Your task to perform on an android device: uninstall "Adobe Express: Graphic Design" Image 0: 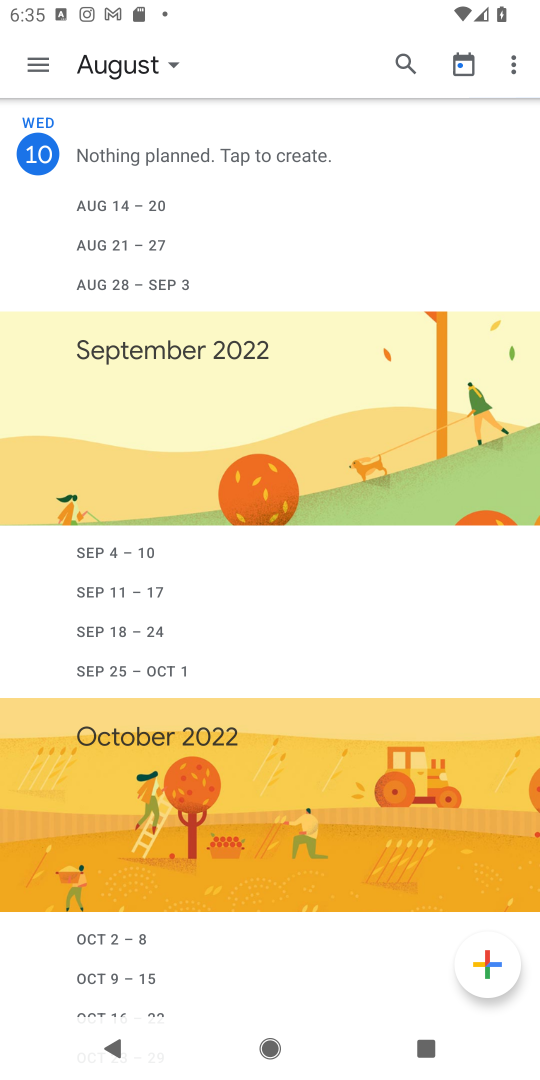
Step 0: press home button
Your task to perform on an android device: uninstall "Adobe Express: Graphic Design" Image 1: 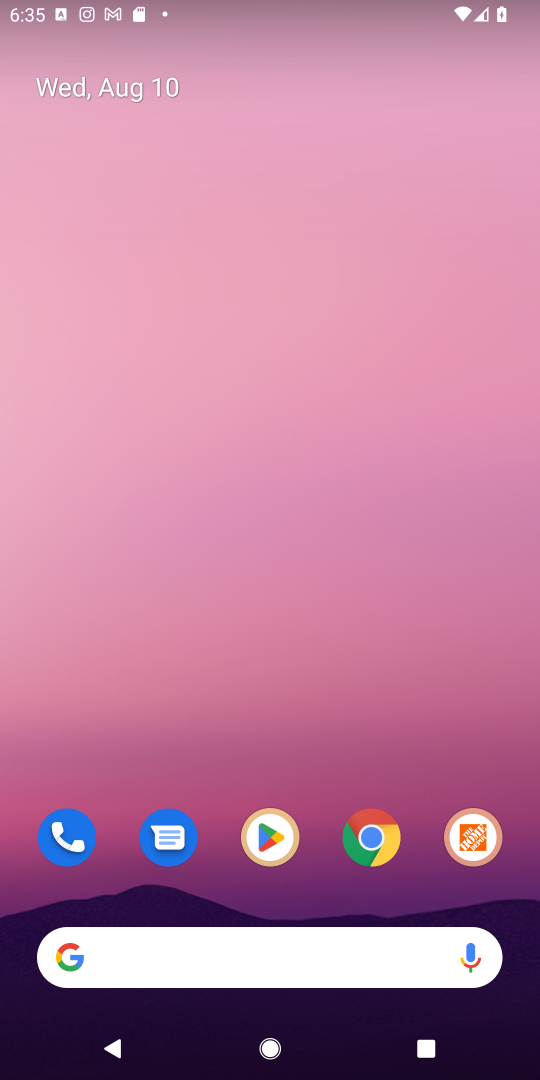
Step 1: press home button
Your task to perform on an android device: uninstall "Adobe Express: Graphic Design" Image 2: 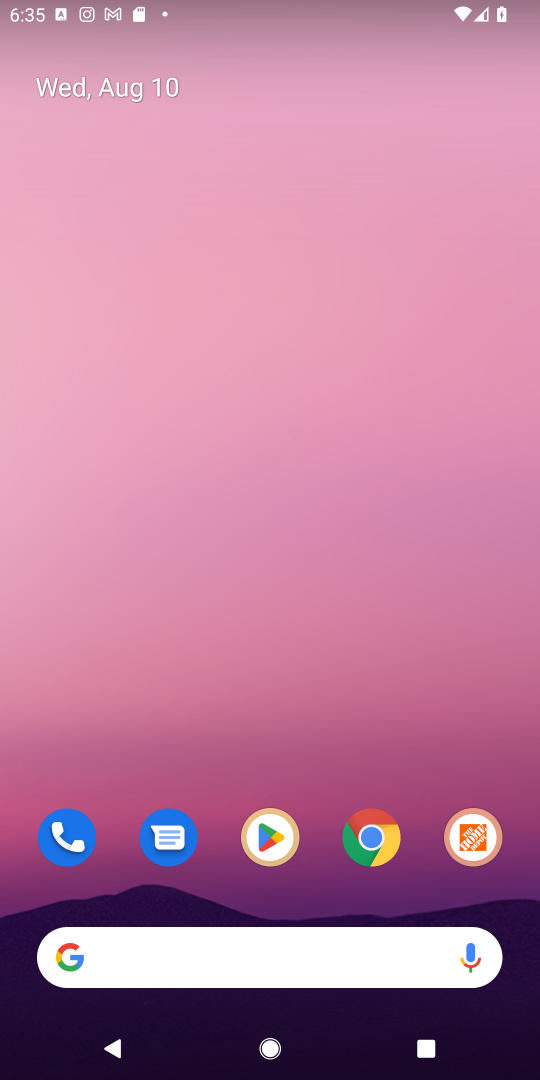
Step 2: click (269, 826)
Your task to perform on an android device: uninstall "Adobe Express: Graphic Design" Image 3: 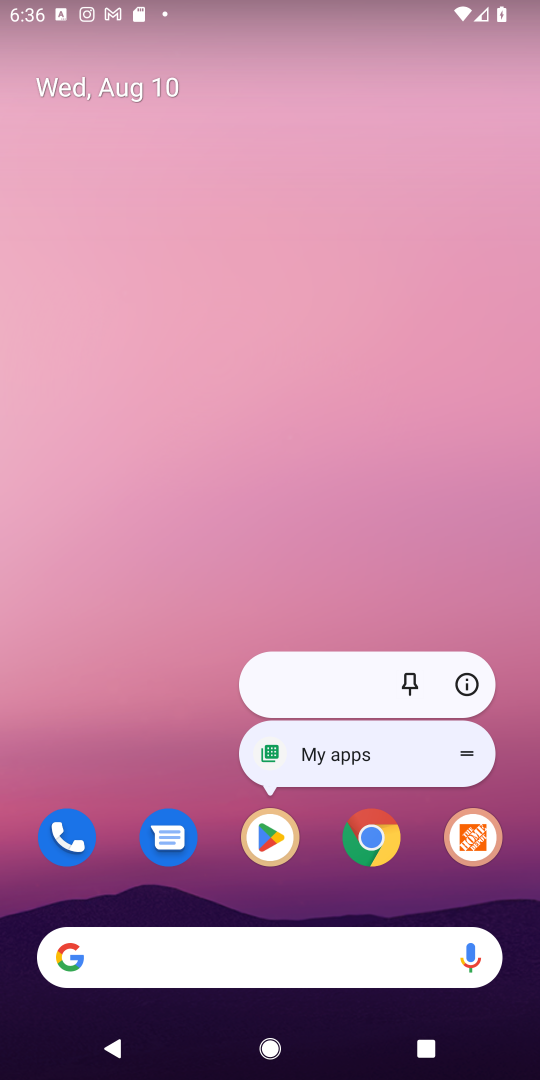
Step 3: click (271, 824)
Your task to perform on an android device: uninstall "Adobe Express: Graphic Design" Image 4: 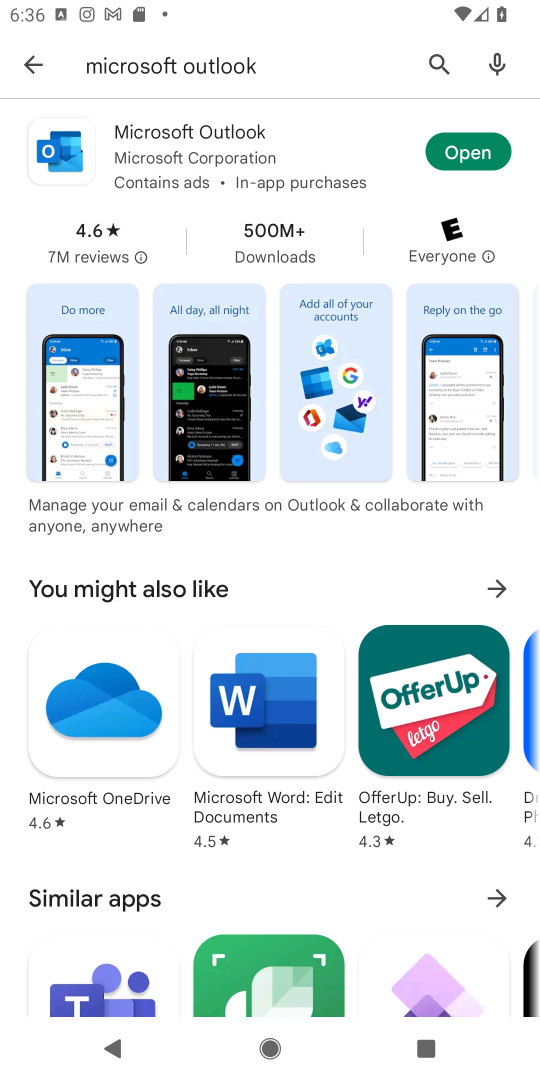
Step 4: click (431, 63)
Your task to perform on an android device: uninstall "Adobe Express: Graphic Design" Image 5: 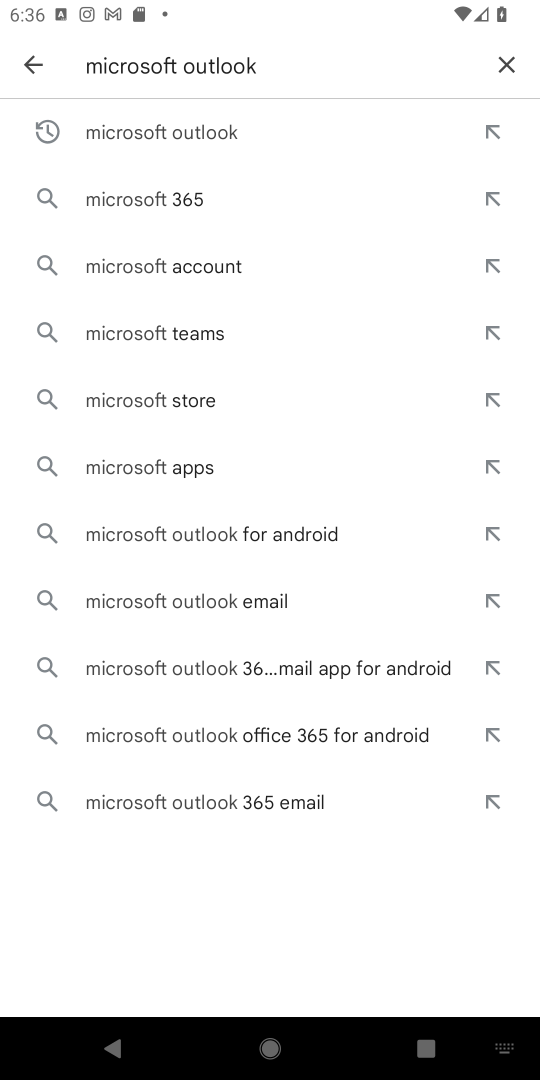
Step 5: click (509, 63)
Your task to perform on an android device: uninstall "Adobe Express: Graphic Design" Image 6: 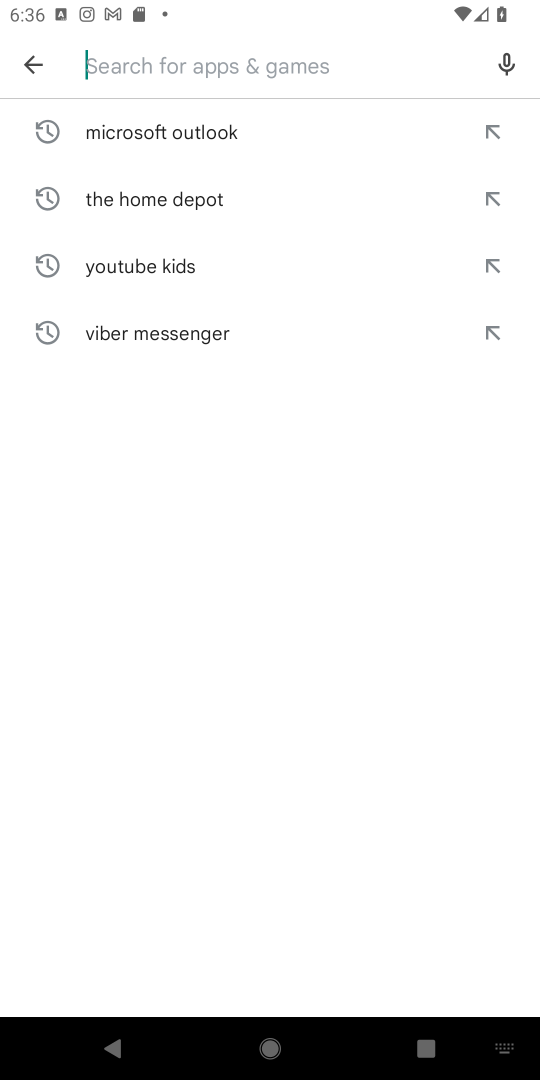
Step 6: type "Adobe Express: Graphic Design"
Your task to perform on an android device: uninstall "Adobe Express: Graphic Design" Image 7: 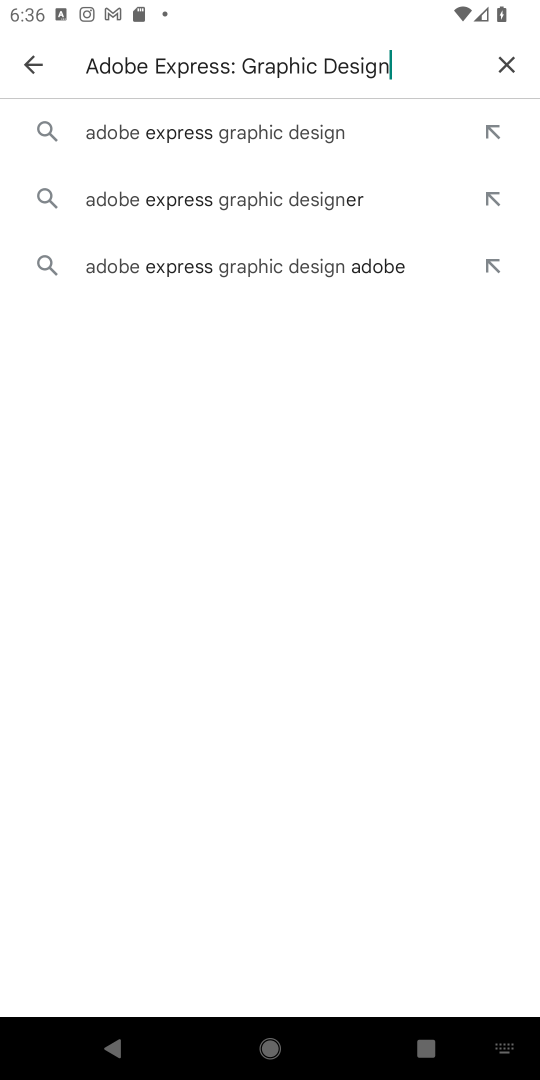
Step 7: click (222, 129)
Your task to perform on an android device: uninstall "Adobe Express: Graphic Design" Image 8: 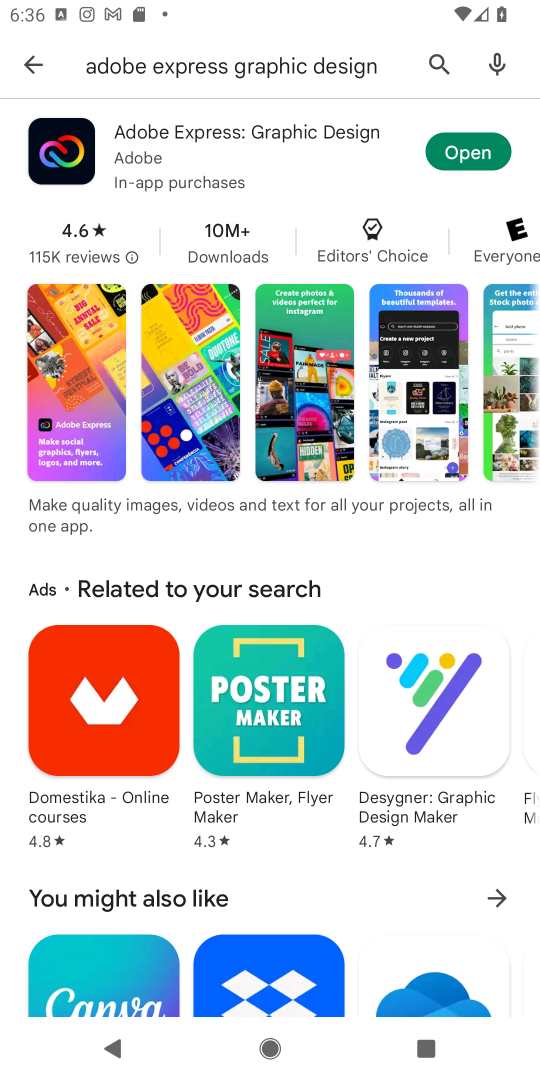
Step 8: click (189, 144)
Your task to perform on an android device: uninstall "Adobe Express: Graphic Design" Image 9: 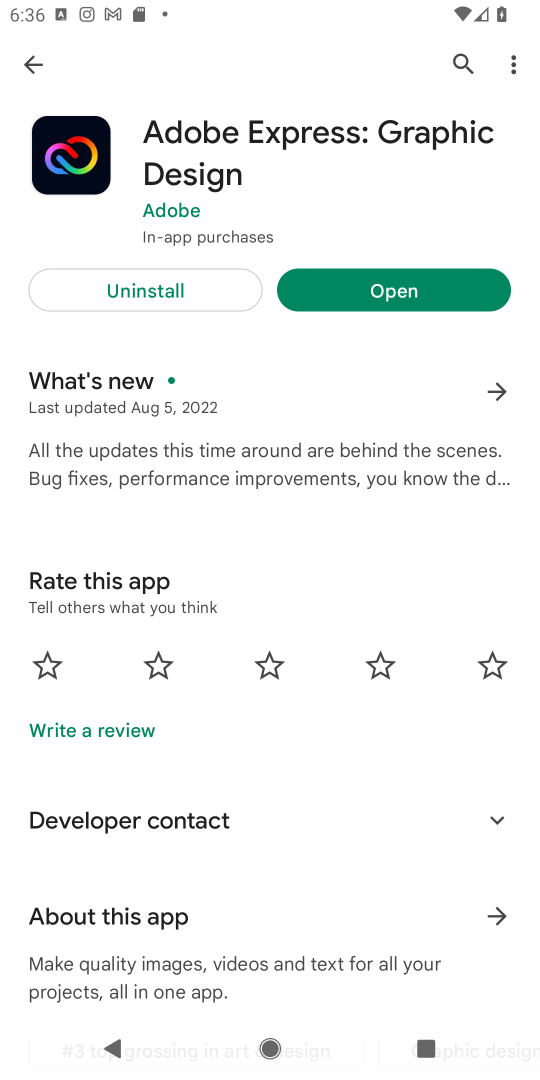
Step 9: click (212, 285)
Your task to perform on an android device: uninstall "Adobe Express: Graphic Design" Image 10: 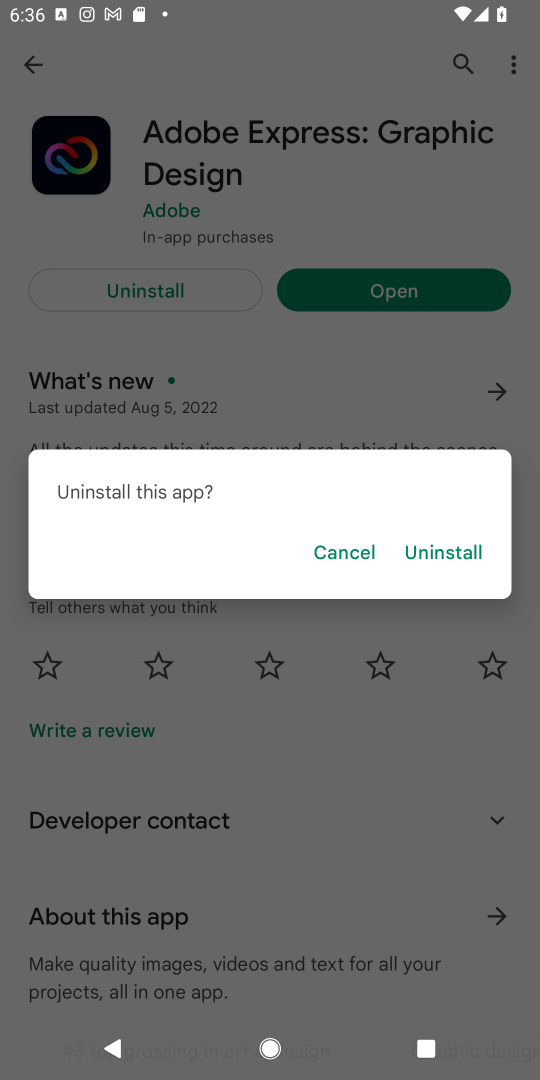
Step 10: click (448, 547)
Your task to perform on an android device: uninstall "Adobe Express: Graphic Design" Image 11: 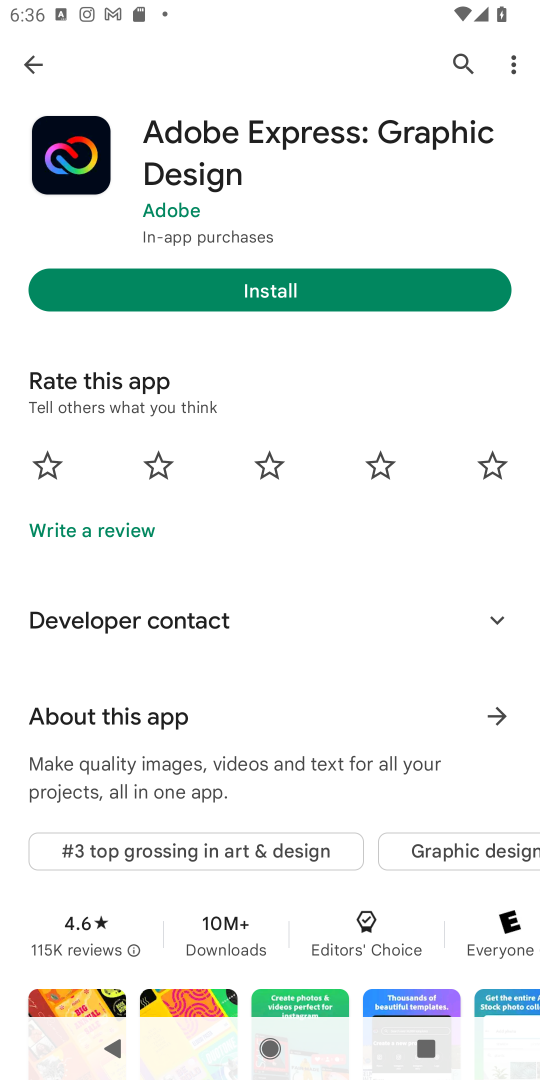
Step 11: task complete